Your task to perform on an android device: open the mobile data screen to see how much data has been used Image 0: 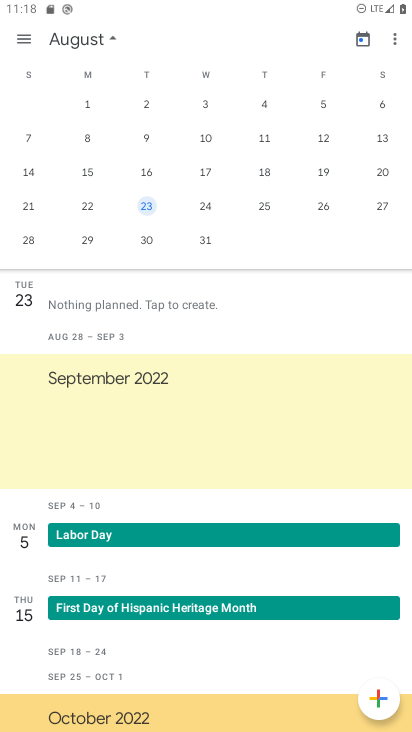
Step 0: press home button
Your task to perform on an android device: open the mobile data screen to see how much data has been used Image 1: 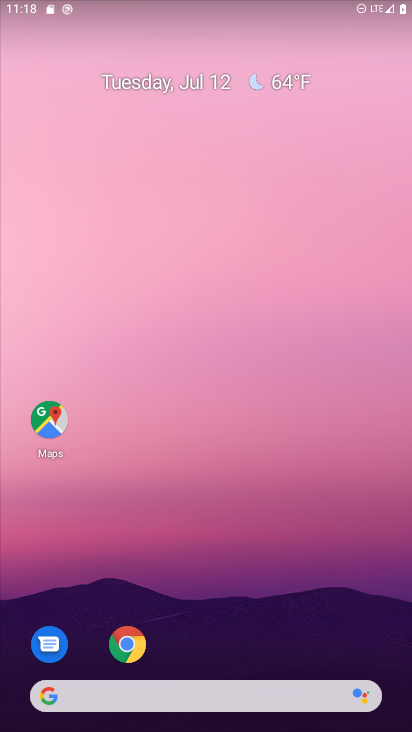
Step 1: drag from (247, 661) to (261, 137)
Your task to perform on an android device: open the mobile data screen to see how much data has been used Image 2: 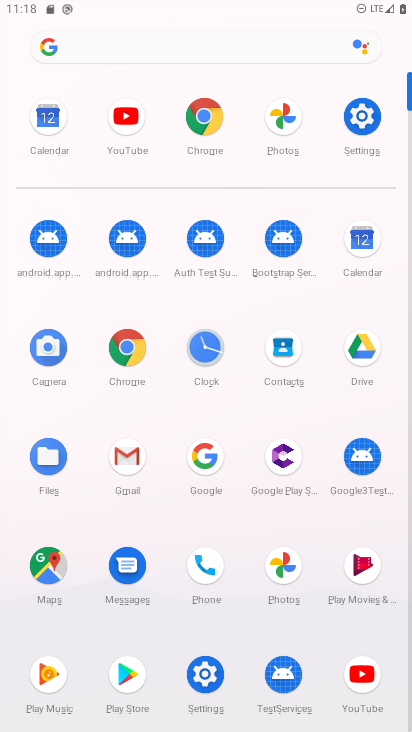
Step 2: click (360, 125)
Your task to perform on an android device: open the mobile data screen to see how much data has been used Image 3: 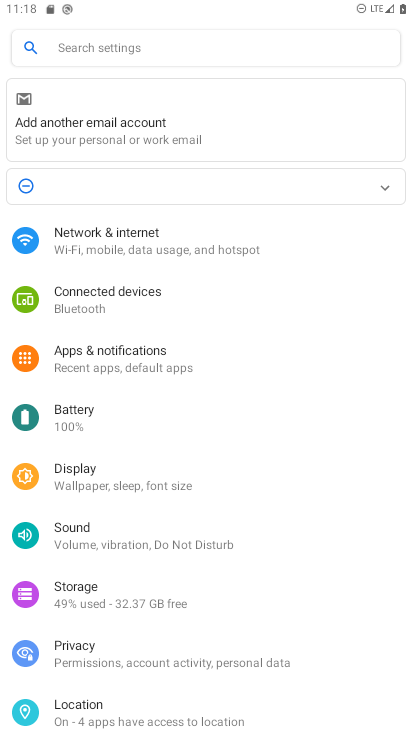
Step 3: click (179, 245)
Your task to perform on an android device: open the mobile data screen to see how much data has been used Image 4: 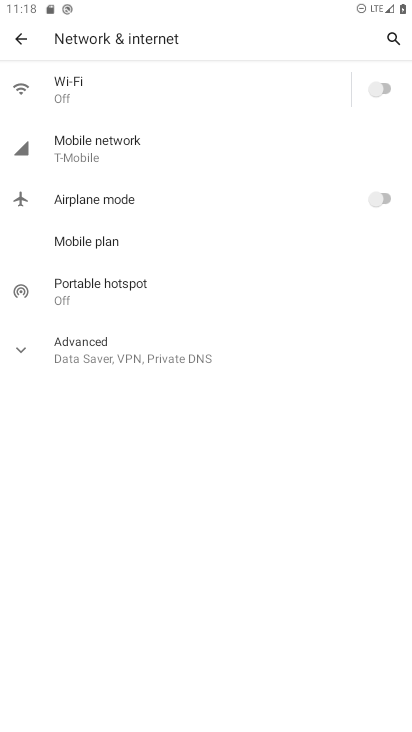
Step 4: click (148, 146)
Your task to perform on an android device: open the mobile data screen to see how much data has been used Image 5: 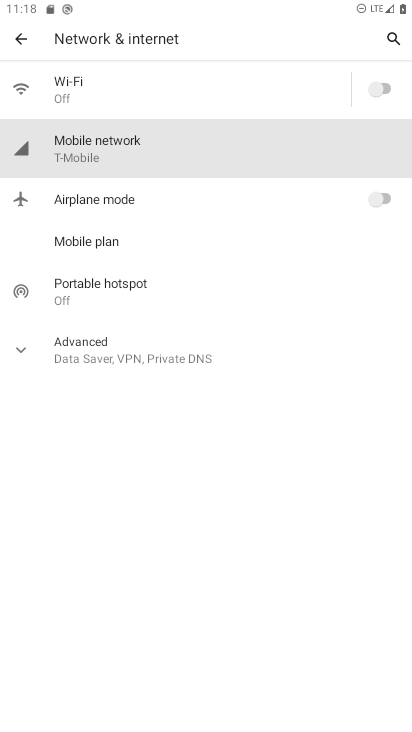
Step 5: task complete